Your task to perform on an android device: check google app version Image 0: 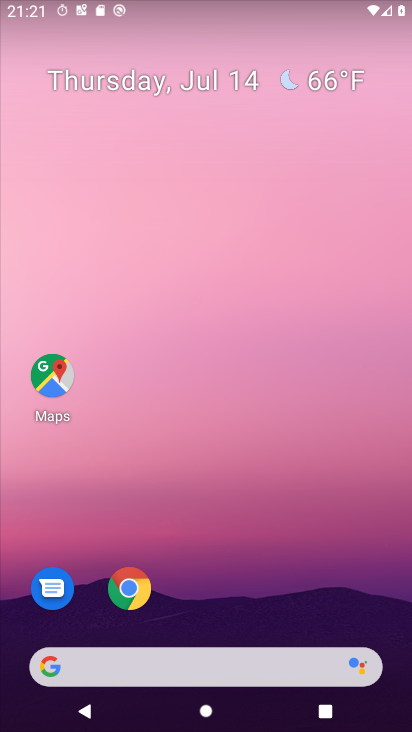
Step 0: drag from (313, 605) to (349, 116)
Your task to perform on an android device: check google app version Image 1: 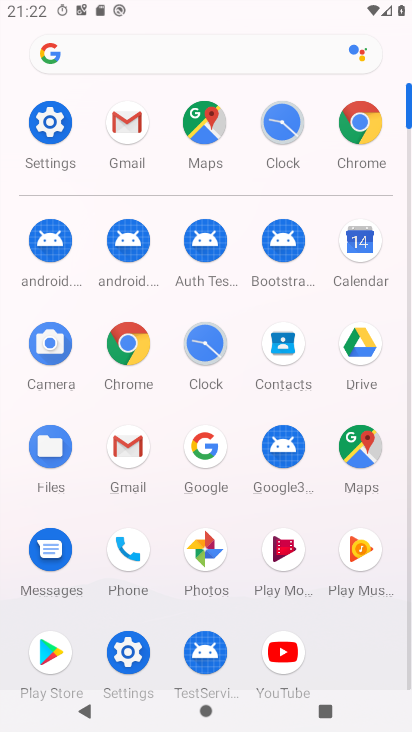
Step 1: click (211, 444)
Your task to perform on an android device: check google app version Image 2: 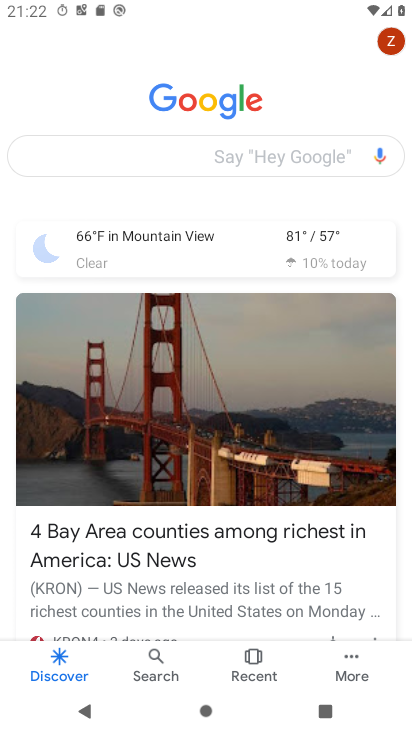
Step 2: click (362, 657)
Your task to perform on an android device: check google app version Image 3: 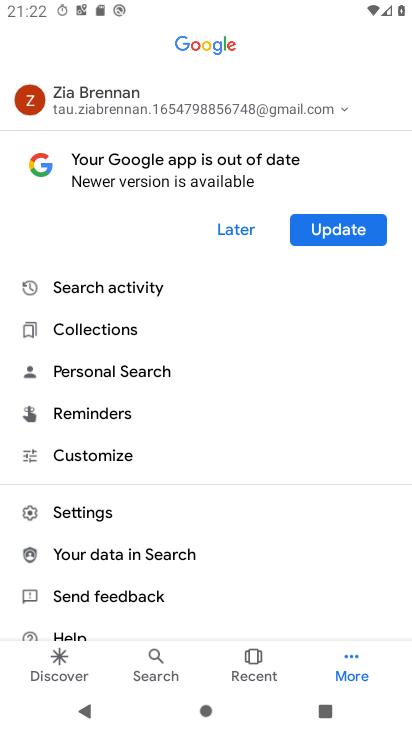
Step 3: click (128, 509)
Your task to perform on an android device: check google app version Image 4: 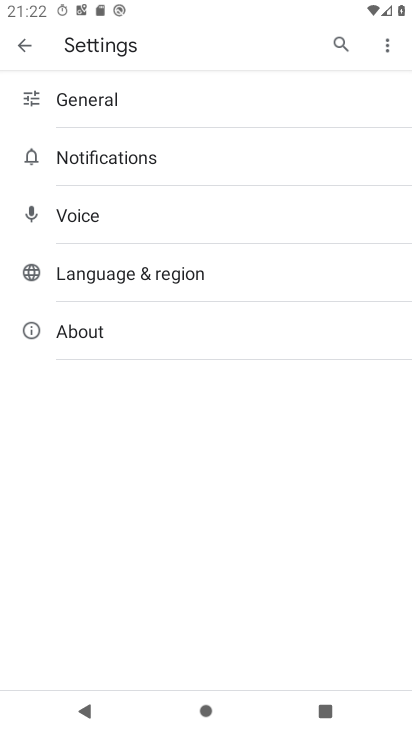
Step 4: click (95, 345)
Your task to perform on an android device: check google app version Image 5: 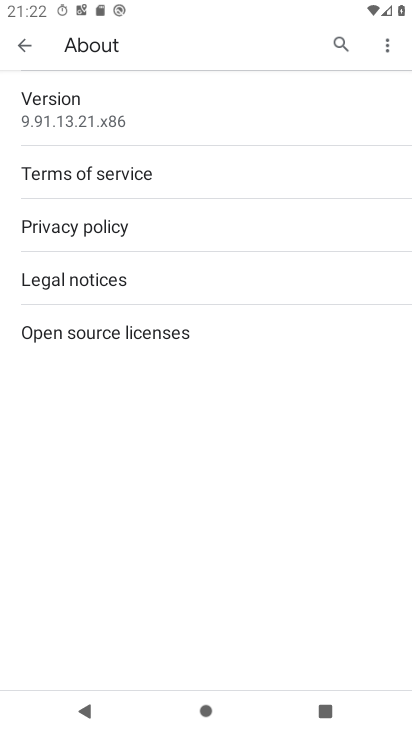
Step 5: task complete